Your task to perform on an android device: open app "McDonald's" (install if not already installed), go to login, and select forgot password Image 0: 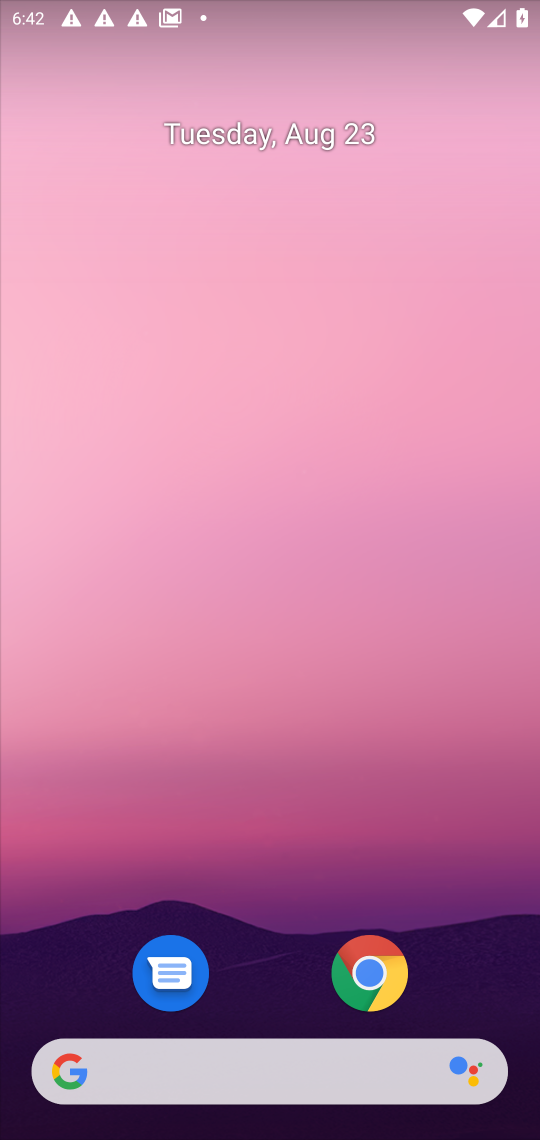
Step 0: drag from (279, 888) to (252, 0)
Your task to perform on an android device: open app "McDonald's" (install if not already installed), go to login, and select forgot password Image 1: 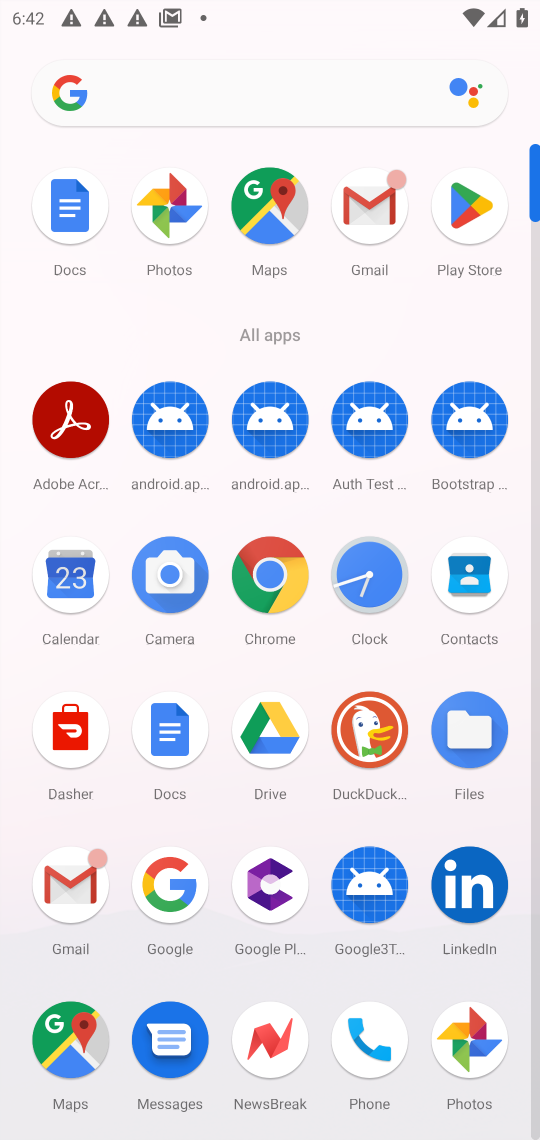
Step 1: click (481, 200)
Your task to perform on an android device: open app "McDonald's" (install if not already installed), go to login, and select forgot password Image 2: 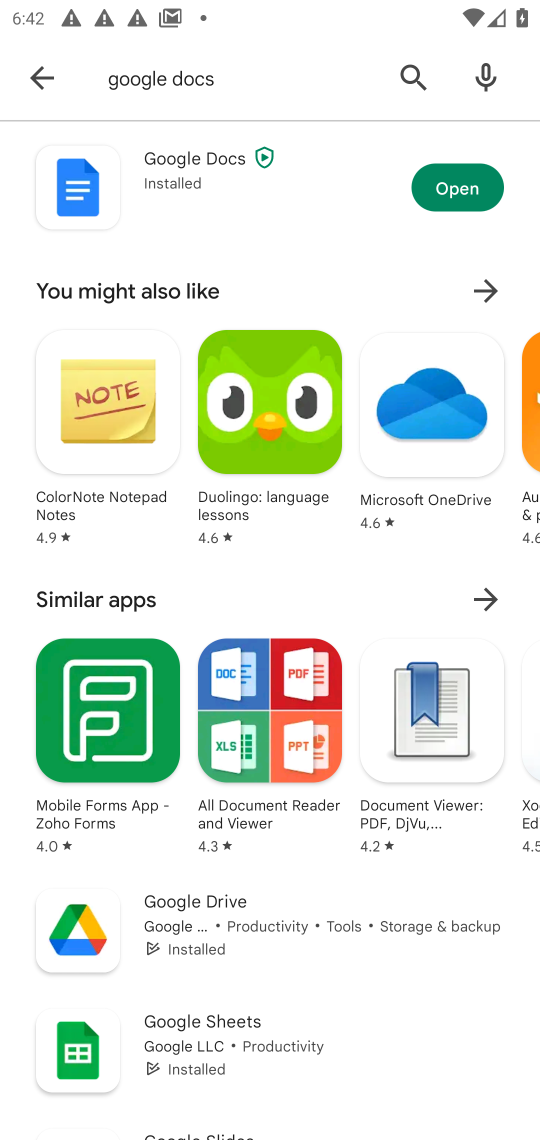
Step 2: click (409, 74)
Your task to perform on an android device: open app "McDonald's" (install if not already installed), go to login, and select forgot password Image 3: 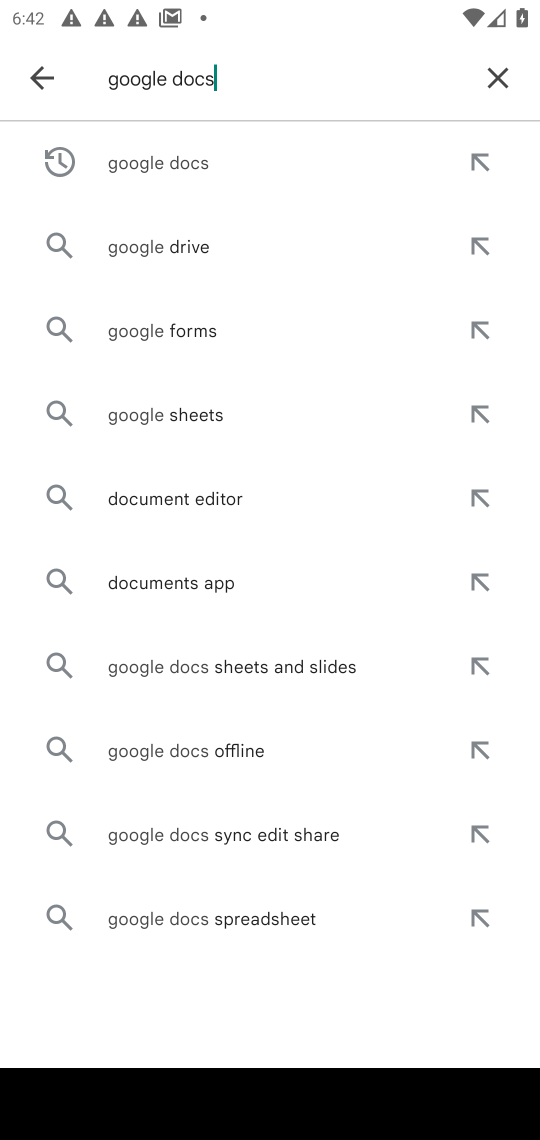
Step 3: click (482, 69)
Your task to perform on an android device: open app "McDonald's" (install if not already installed), go to login, and select forgot password Image 4: 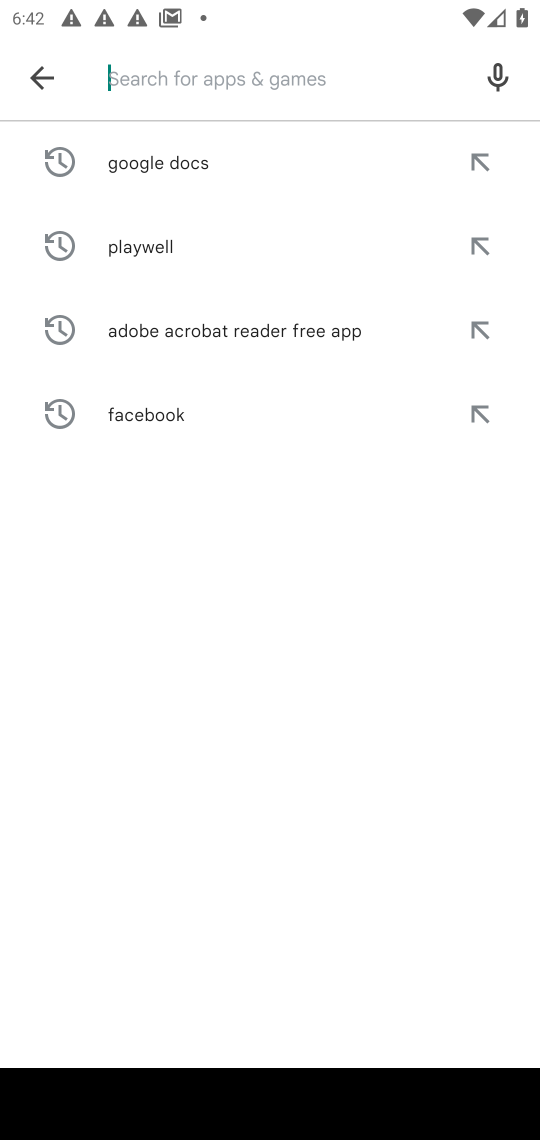
Step 4: click (142, 63)
Your task to perform on an android device: open app "McDonald's" (install if not already installed), go to login, and select forgot password Image 5: 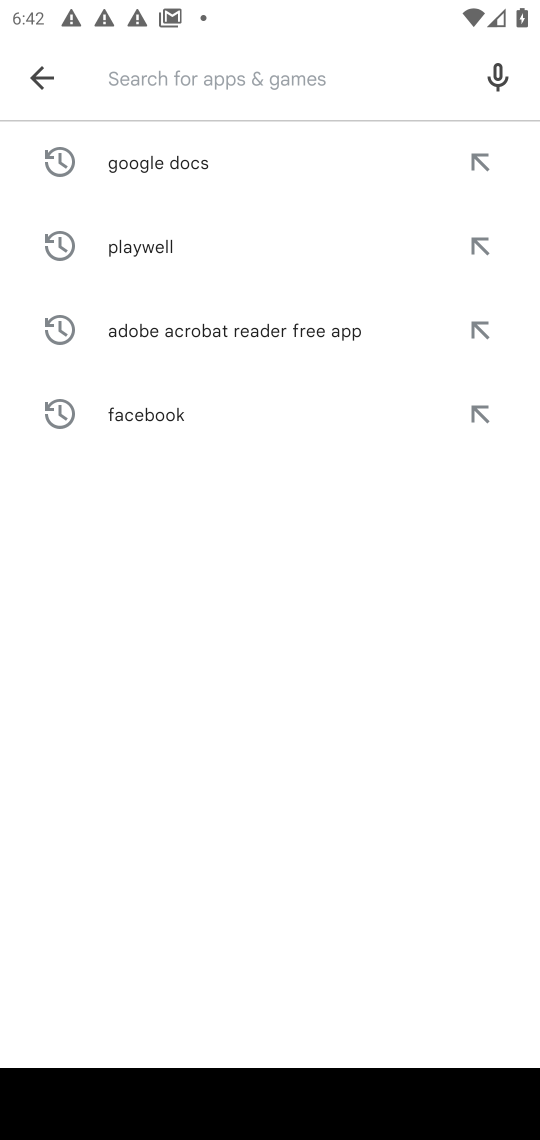
Step 5: type "McDonald's"
Your task to perform on an android device: open app "McDonald's" (install if not already installed), go to login, and select forgot password Image 6: 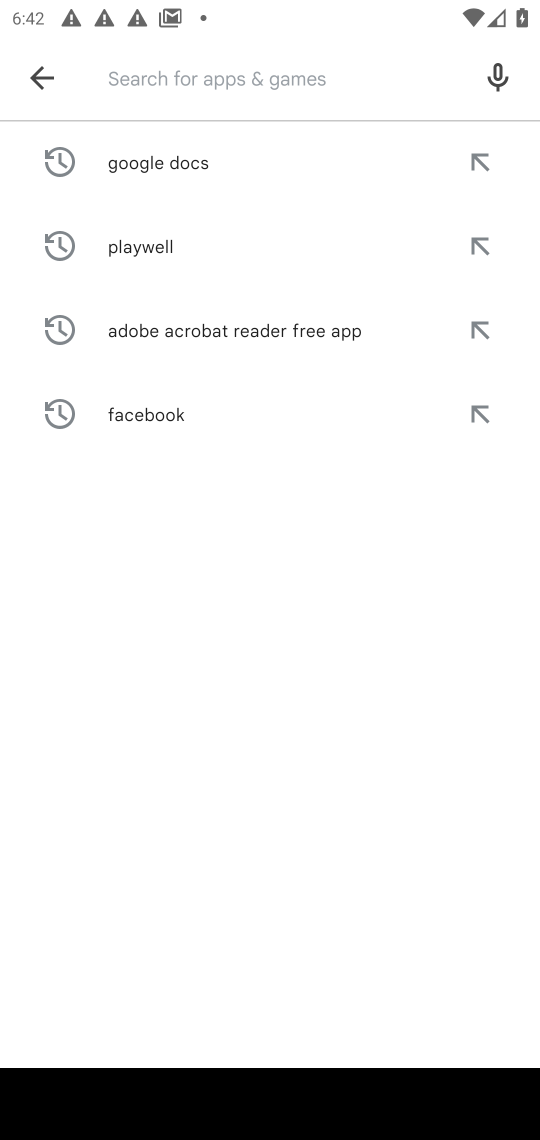
Step 6: click (437, 741)
Your task to perform on an android device: open app "McDonald's" (install if not already installed), go to login, and select forgot password Image 7: 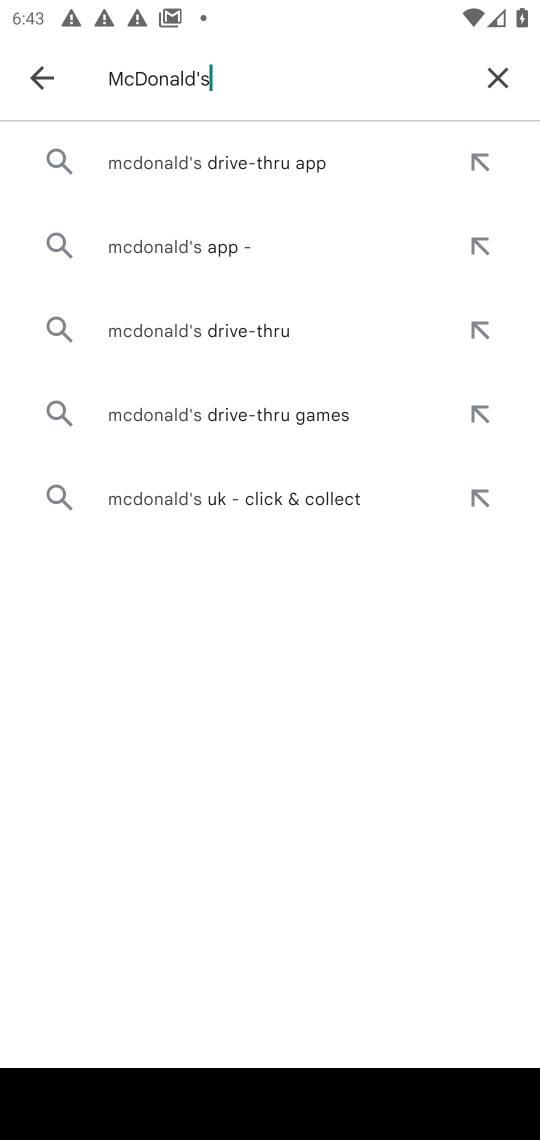
Step 7: click (174, 154)
Your task to perform on an android device: open app "McDonald's" (install if not already installed), go to login, and select forgot password Image 8: 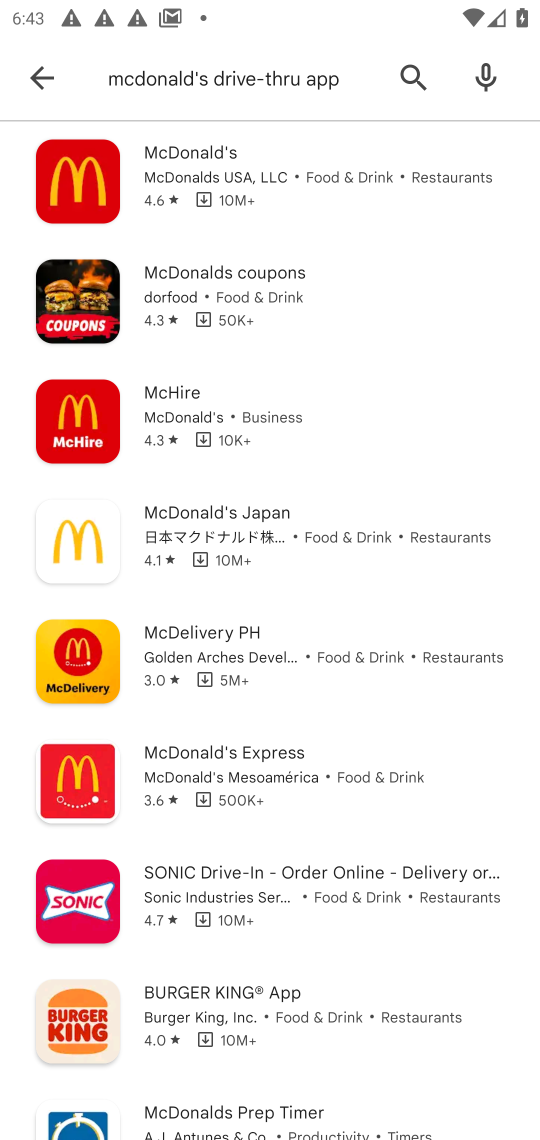
Step 8: click (211, 177)
Your task to perform on an android device: open app "McDonald's" (install if not already installed), go to login, and select forgot password Image 9: 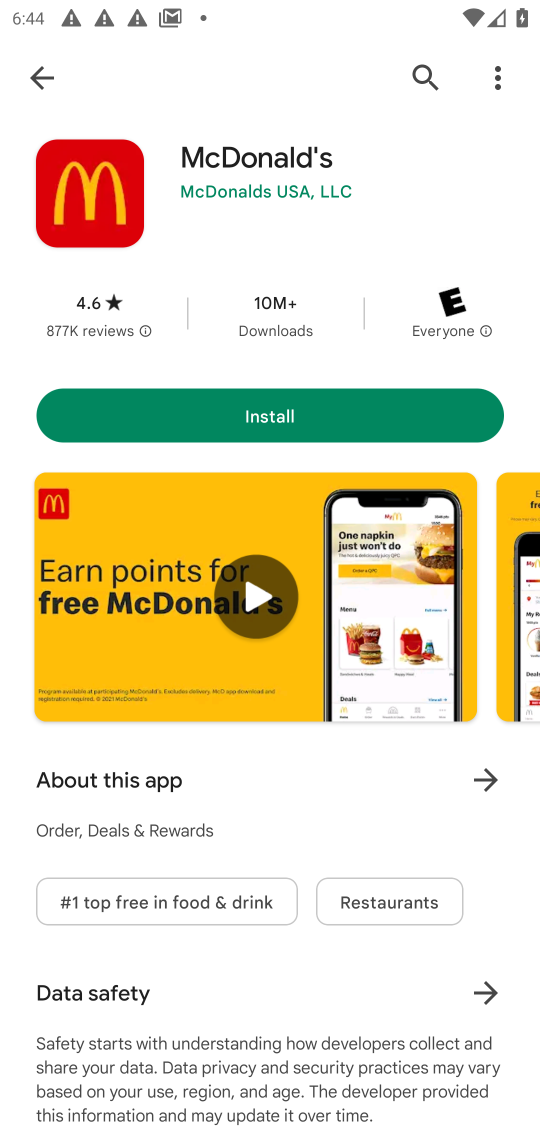
Step 9: click (284, 411)
Your task to perform on an android device: open app "McDonald's" (install if not already installed), go to login, and select forgot password Image 10: 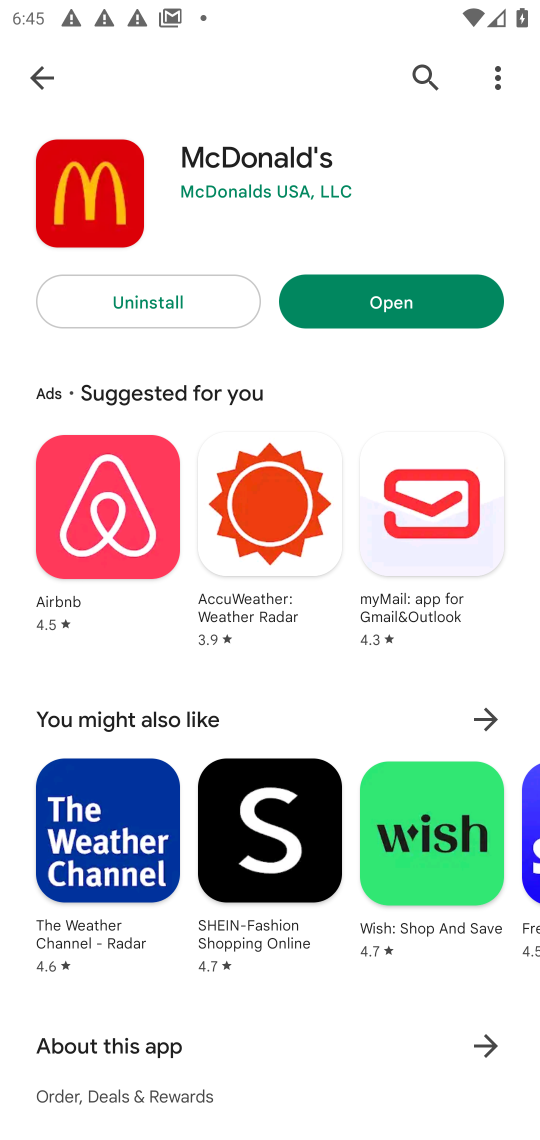
Step 10: click (412, 293)
Your task to perform on an android device: open app "McDonald's" (install if not already installed), go to login, and select forgot password Image 11: 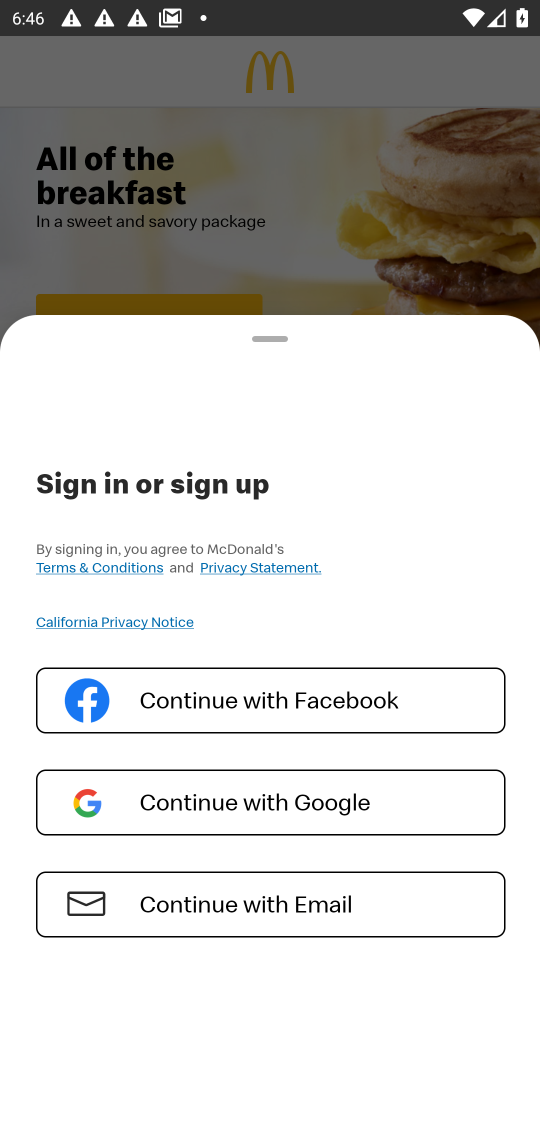
Step 11: click (245, 917)
Your task to perform on an android device: open app "McDonald's" (install if not already installed), go to login, and select forgot password Image 12: 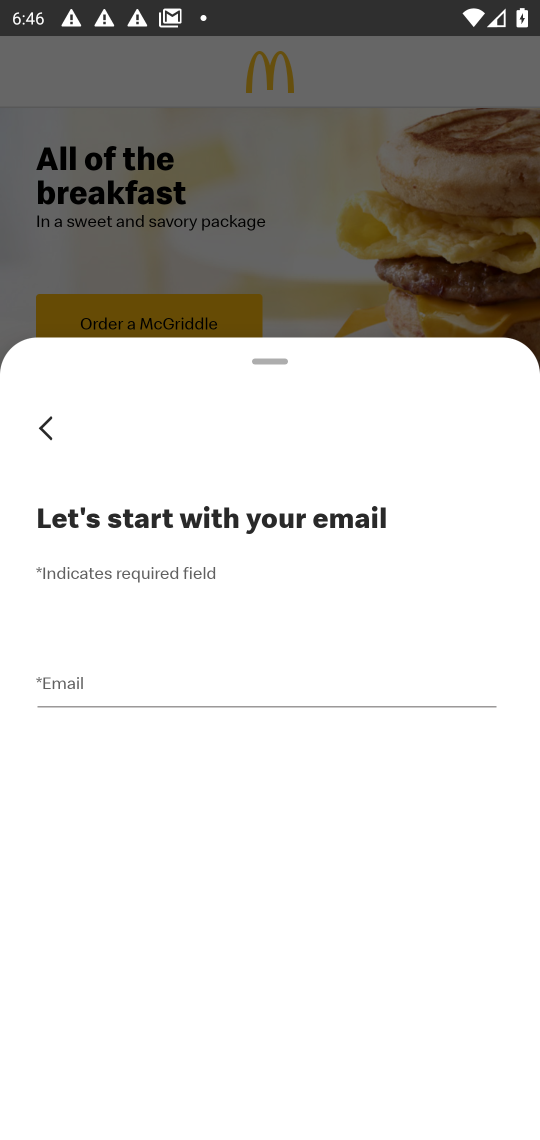
Step 12: task complete